Your task to perform on an android device: See recent photos Image 0: 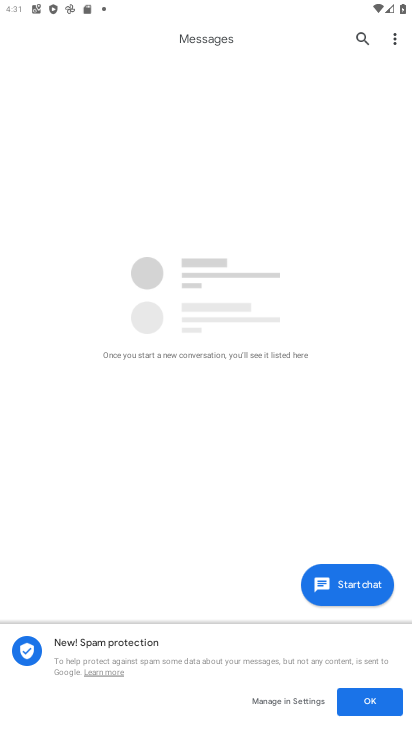
Step 0: press home button
Your task to perform on an android device: See recent photos Image 1: 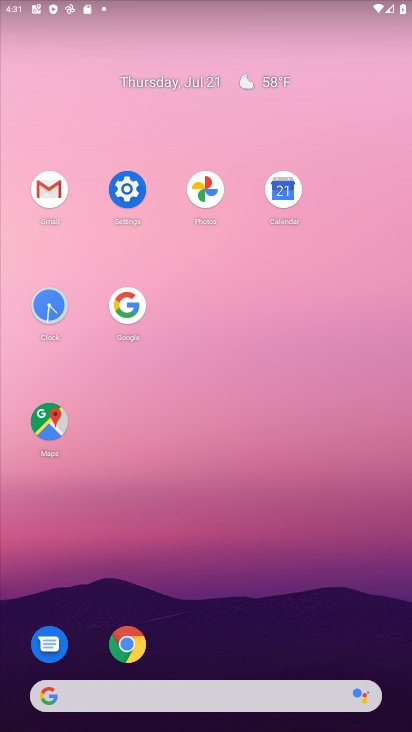
Step 1: click (210, 190)
Your task to perform on an android device: See recent photos Image 2: 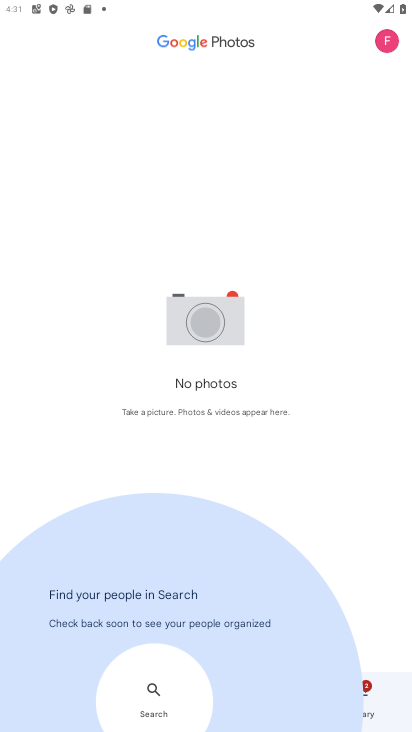
Step 2: task complete